Your task to perform on an android device: Go to Yahoo.com Image 0: 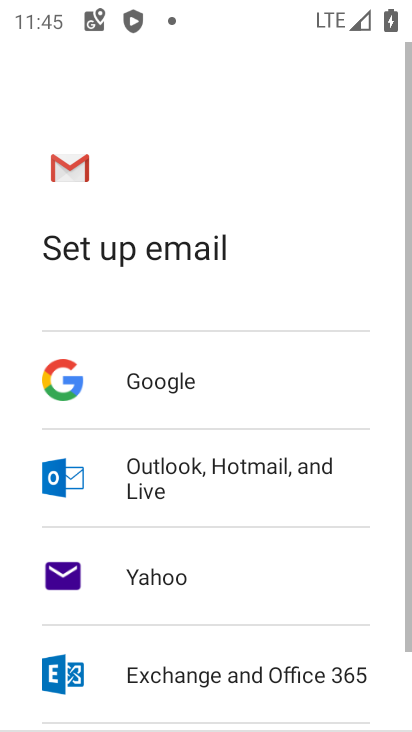
Step 0: press home button
Your task to perform on an android device: Go to Yahoo.com Image 1: 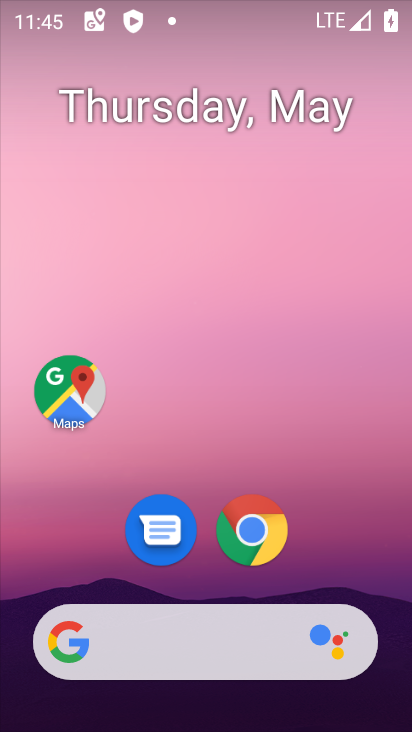
Step 1: click (255, 645)
Your task to perform on an android device: Go to Yahoo.com Image 2: 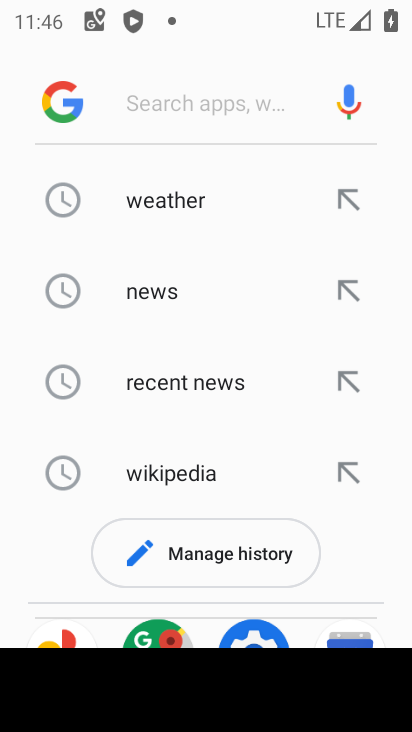
Step 2: type "yahoo,com"
Your task to perform on an android device: Go to Yahoo.com Image 3: 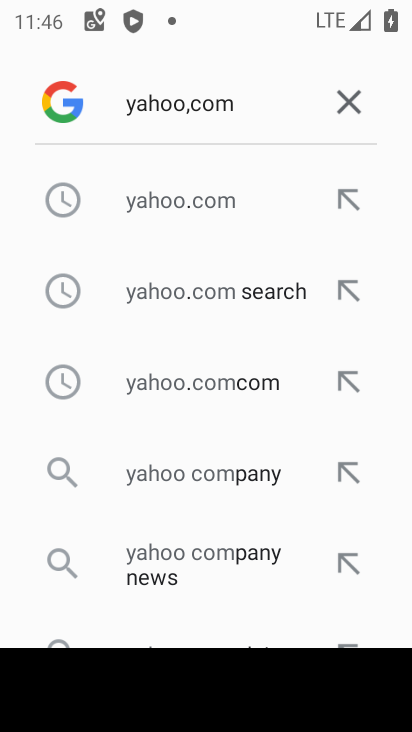
Step 3: click (161, 199)
Your task to perform on an android device: Go to Yahoo.com Image 4: 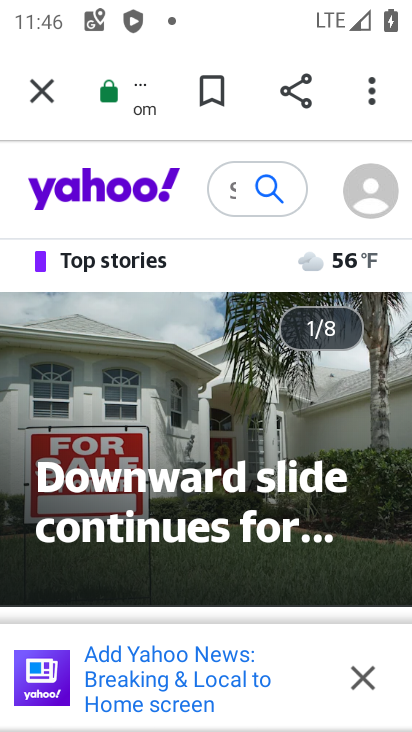
Step 4: task complete